Your task to perform on an android device: open device folders in google photos Image 0: 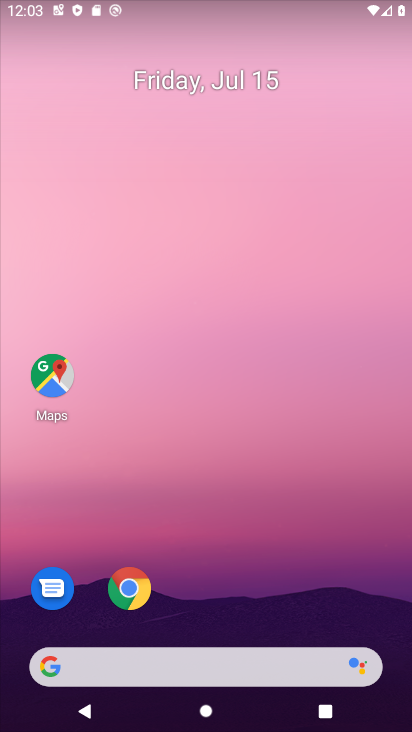
Step 0: drag from (259, 706) to (401, 53)
Your task to perform on an android device: open device folders in google photos Image 1: 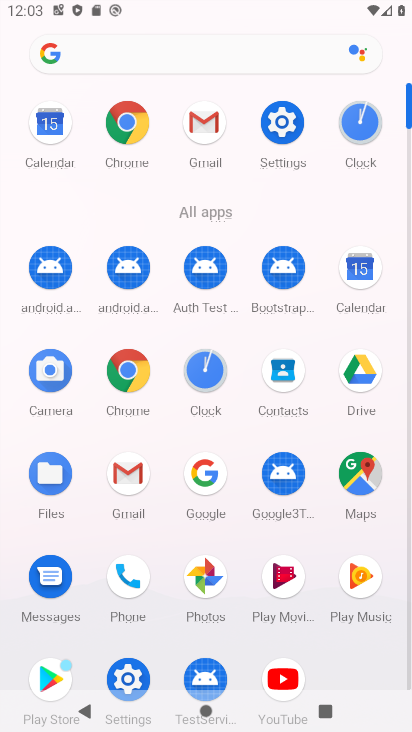
Step 1: click (217, 572)
Your task to perform on an android device: open device folders in google photos Image 2: 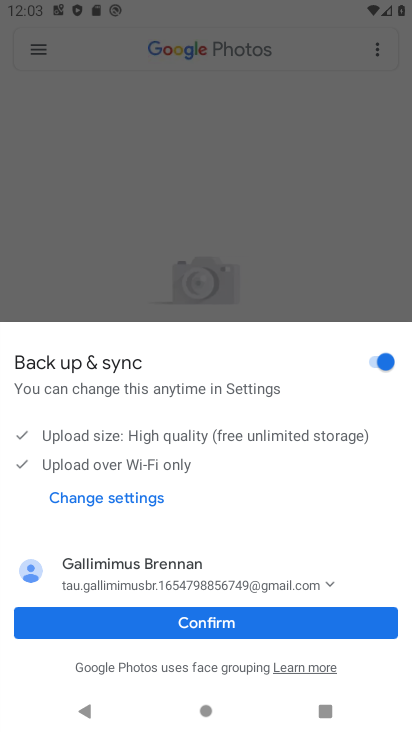
Step 2: click (69, 377)
Your task to perform on an android device: open device folders in google photos Image 3: 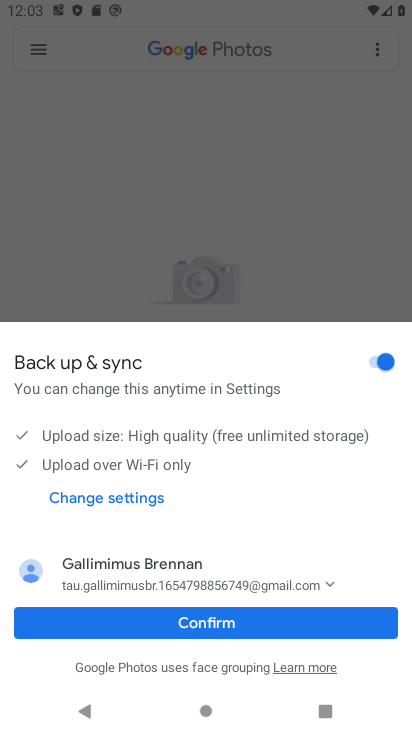
Step 3: click (182, 195)
Your task to perform on an android device: open device folders in google photos Image 4: 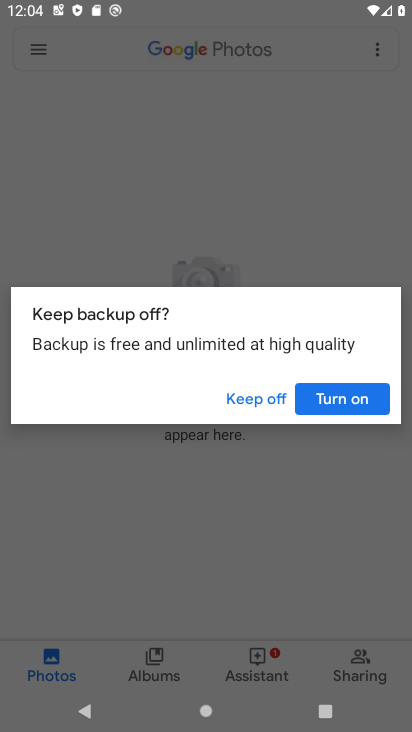
Step 4: click (335, 397)
Your task to perform on an android device: open device folders in google photos Image 5: 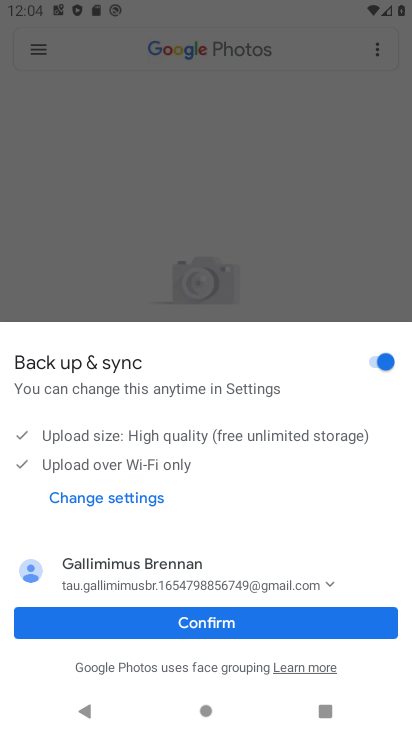
Step 5: click (254, 620)
Your task to perform on an android device: open device folders in google photos Image 6: 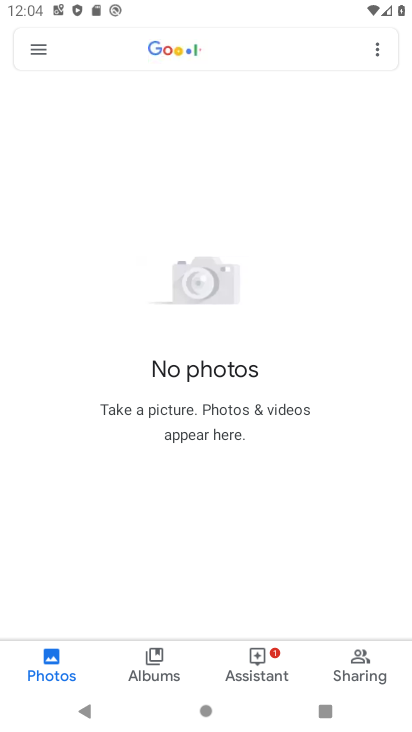
Step 6: click (40, 46)
Your task to perform on an android device: open device folders in google photos Image 7: 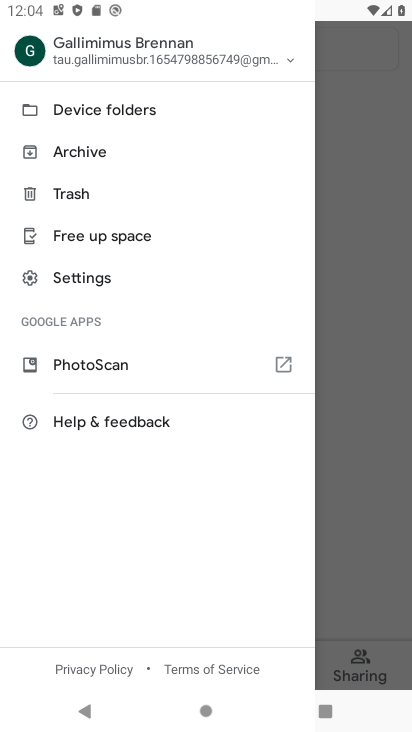
Step 7: click (130, 106)
Your task to perform on an android device: open device folders in google photos Image 8: 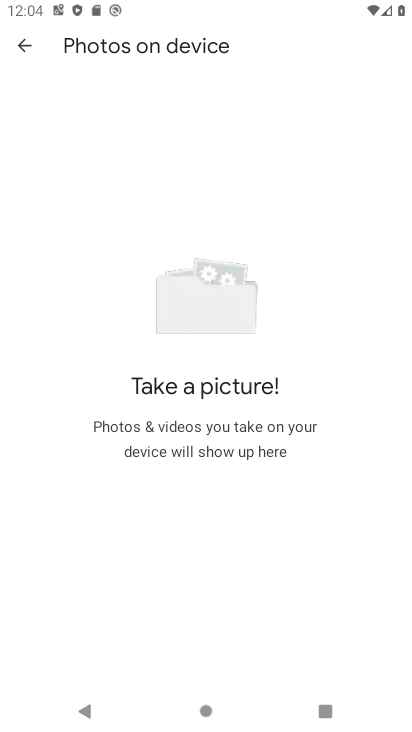
Step 8: task complete